Your task to perform on an android device: Open Google Chrome Image 0: 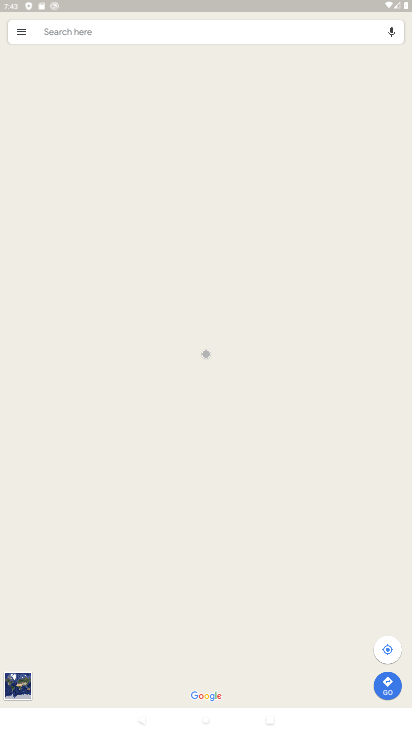
Step 0: press home button
Your task to perform on an android device: Open Google Chrome Image 1: 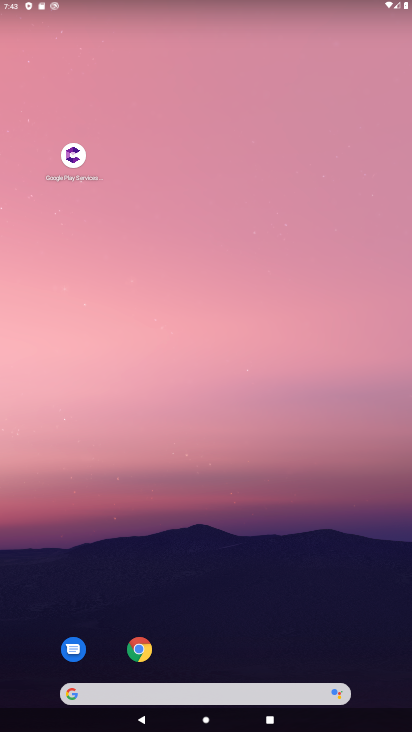
Step 1: click (141, 651)
Your task to perform on an android device: Open Google Chrome Image 2: 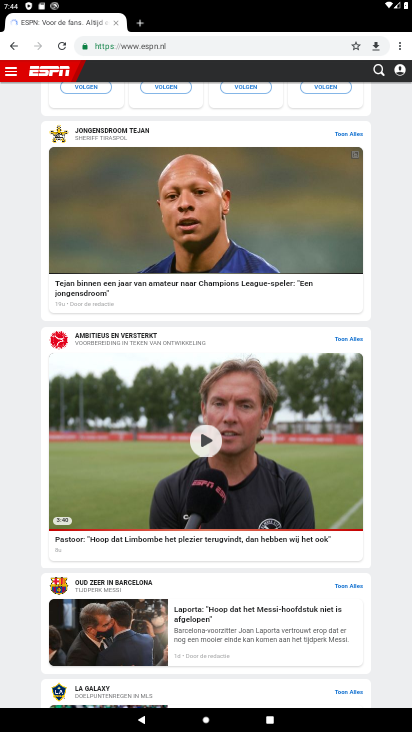
Step 2: task complete